Your task to perform on an android device: turn off notifications settings in the gmail app Image 0: 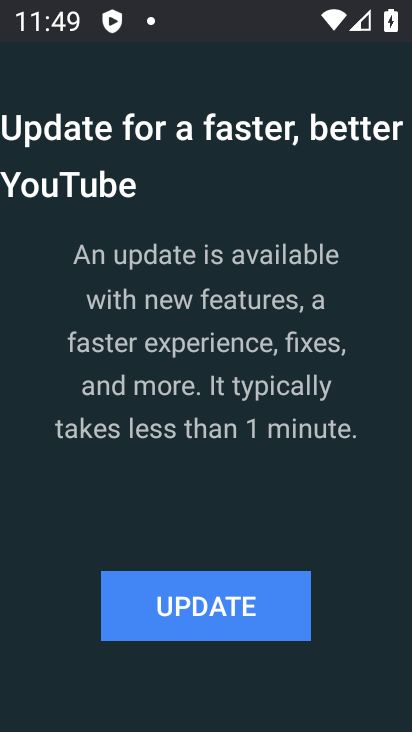
Step 0: press home button
Your task to perform on an android device: turn off notifications settings in the gmail app Image 1: 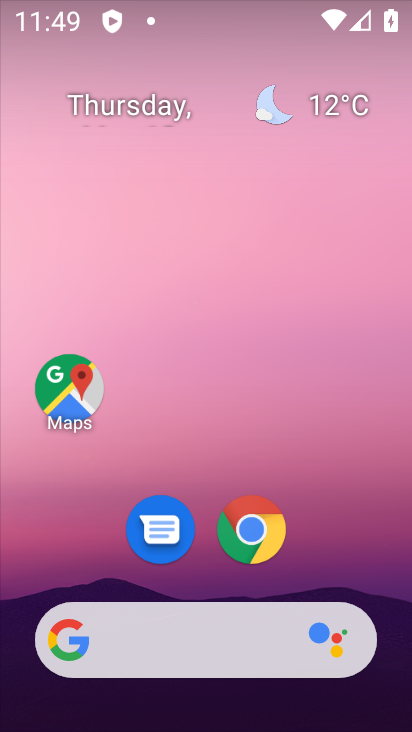
Step 1: drag from (322, 558) to (363, 271)
Your task to perform on an android device: turn off notifications settings in the gmail app Image 2: 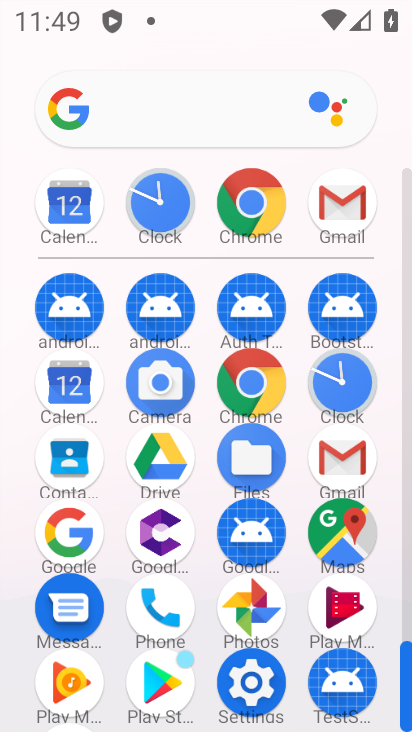
Step 2: click (340, 196)
Your task to perform on an android device: turn off notifications settings in the gmail app Image 3: 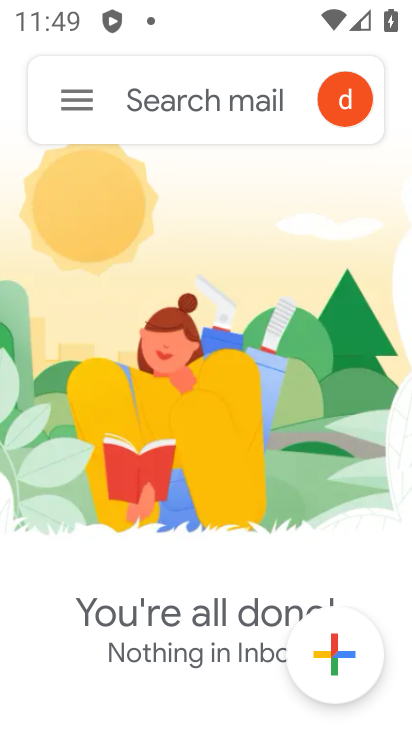
Step 3: click (65, 97)
Your task to perform on an android device: turn off notifications settings in the gmail app Image 4: 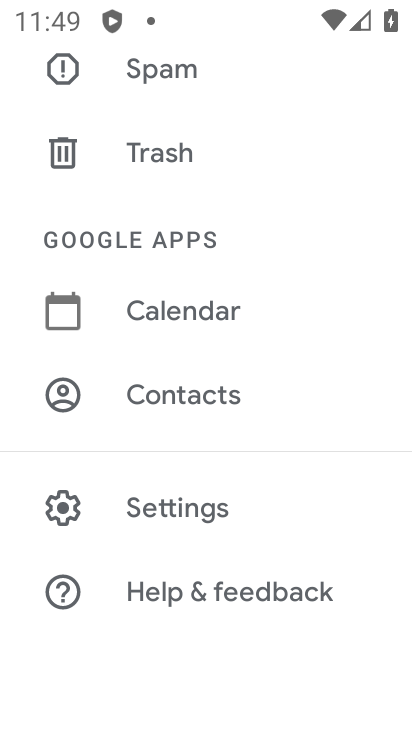
Step 4: click (202, 504)
Your task to perform on an android device: turn off notifications settings in the gmail app Image 5: 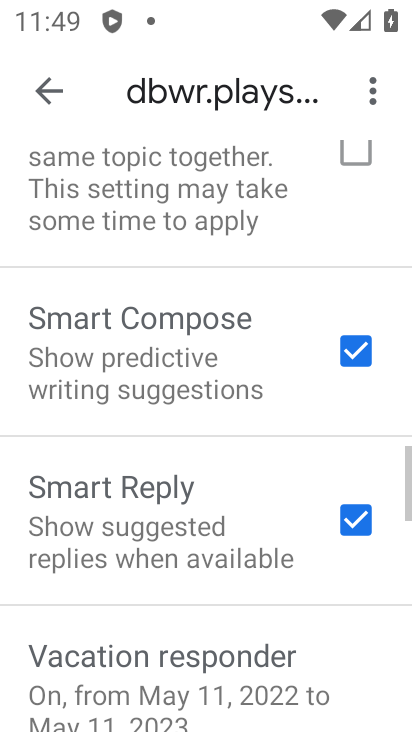
Step 5: drag from (174, 159) to (161, 676)
Your task to perform on an android device: turn off notifications settings in the gmail app Image 6: 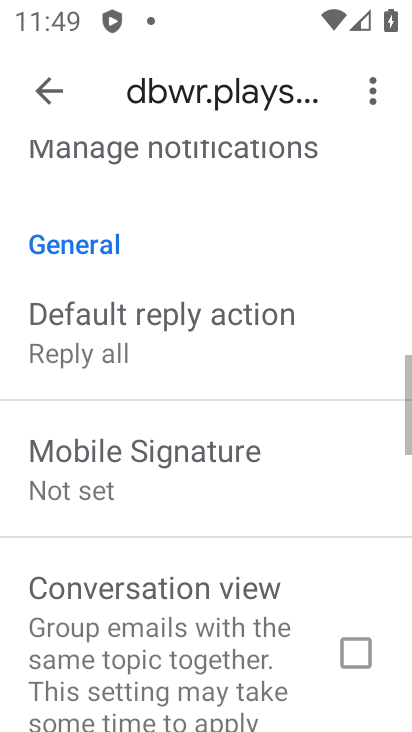
Step 6: drag from (208, 261) to (182, 615)
Your task to perform on an android device: turn off notifications settings in the gmail app Image 7: 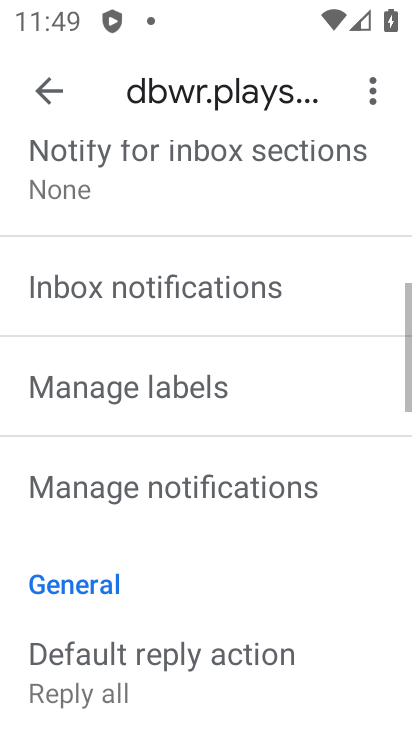
Step 7: drag from (148, 180) to (170, 557)
Your task to perform on an android device: turn off notifications settings in the gmail app Image 8: 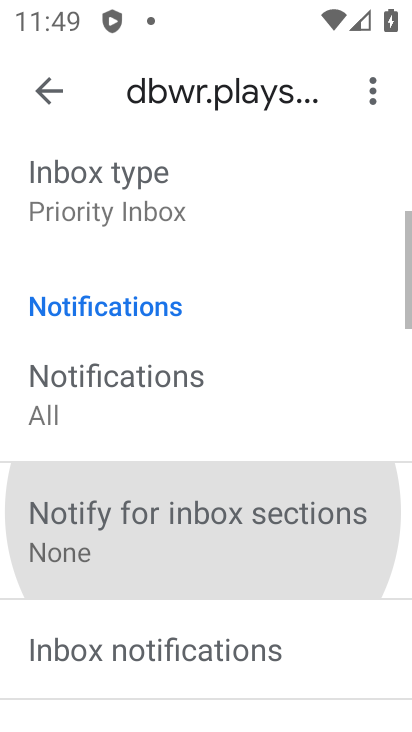
Step 8: drag from (153, 179) to (156, 592)
Your task to perform on an android device: turn off notifications settings in the gmail app Image 9: 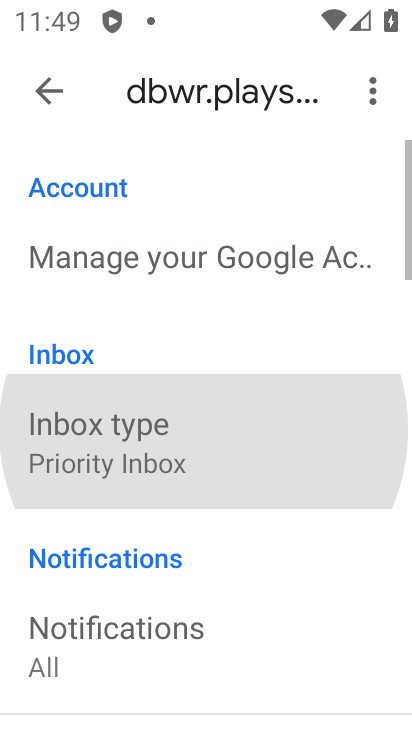
Step 9: drag from (137, 280) to (139, 623)
Your task to perform on an android device: turn off notifications settings in the gmail app Image 10: 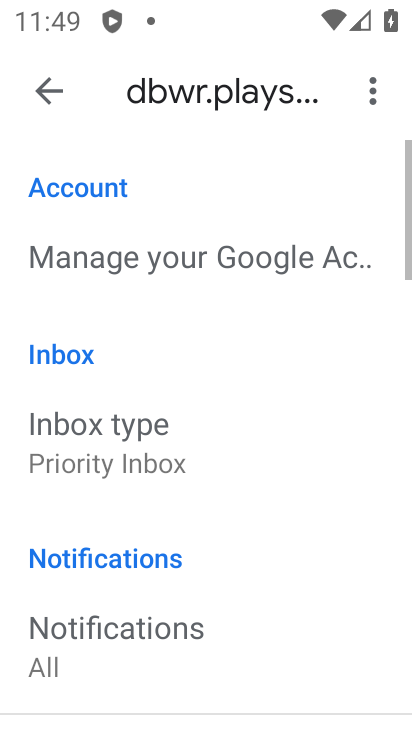
Step 10: drag from (229, 248) to (225, 541)
Your task to perform on an android device: turn off notifications settings in the gmail app Image 11: 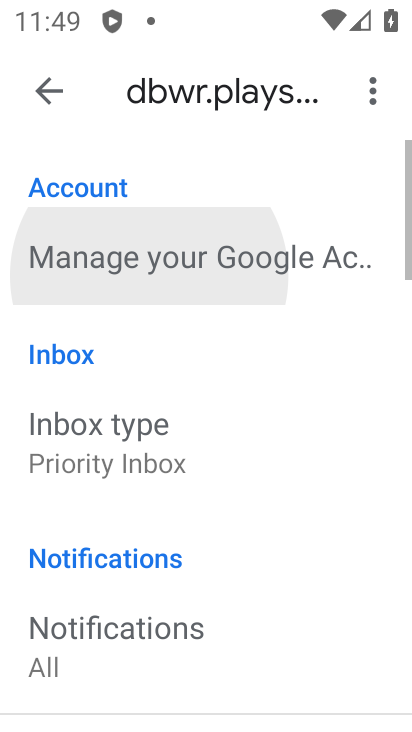
Step 11: drag from (184, 349) to (117, 610)
Your task to perform on an android device: turn off notifications settings in the gmail app Image 12: 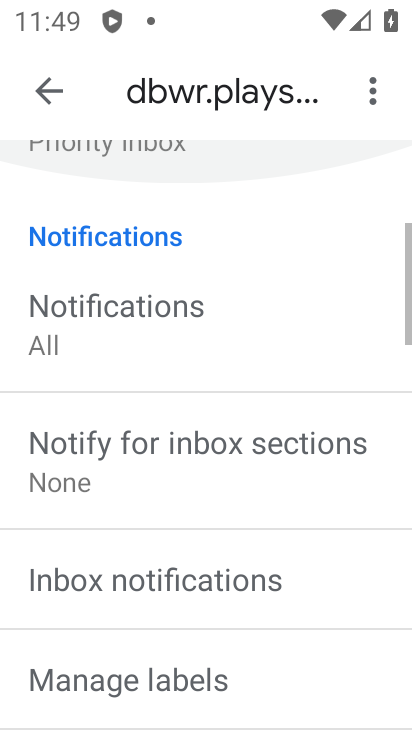
Step 12: drag from (163, 256) to (166, 592)
Your task to perform on an android device: turn off notifications settings in the gmail app Image 13: 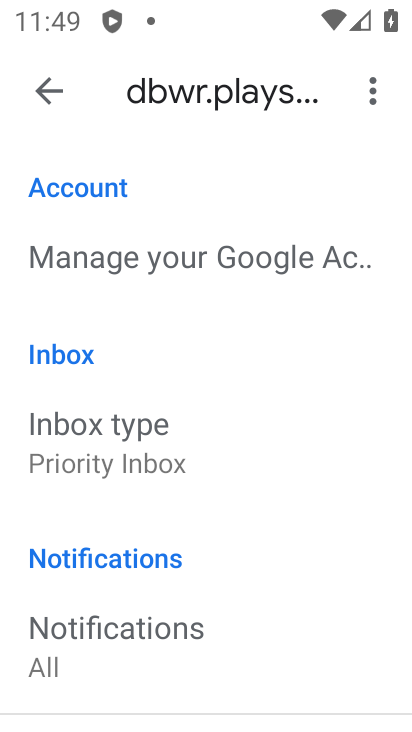
Step 13: click (100, 687)
Your task to perform on an android device: turn off notifications settings in the gmail app Image 14: 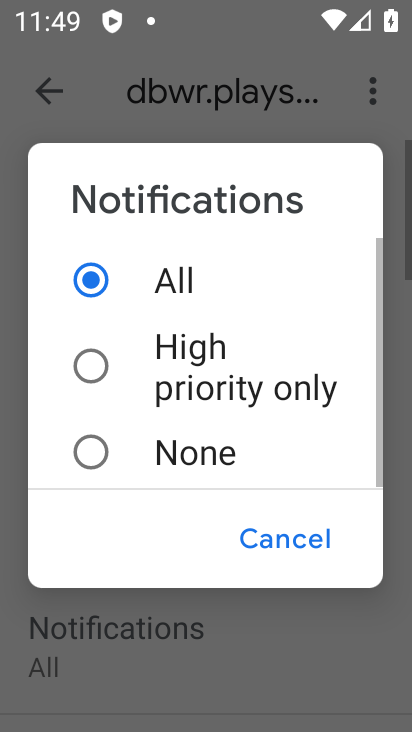
Step 14: click (153, 453)
Your task to perform on an android device: turn off notifications settings in the gmail app Image 15: 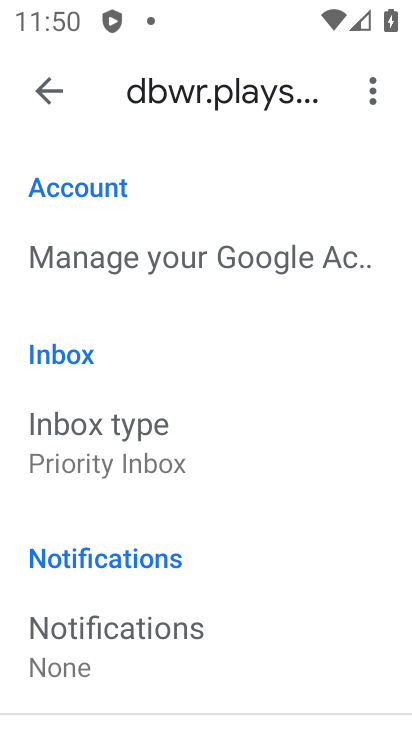
Step 15: task complete